Your task to perform on an android device: turn off javascript in the chrome app Image 0: 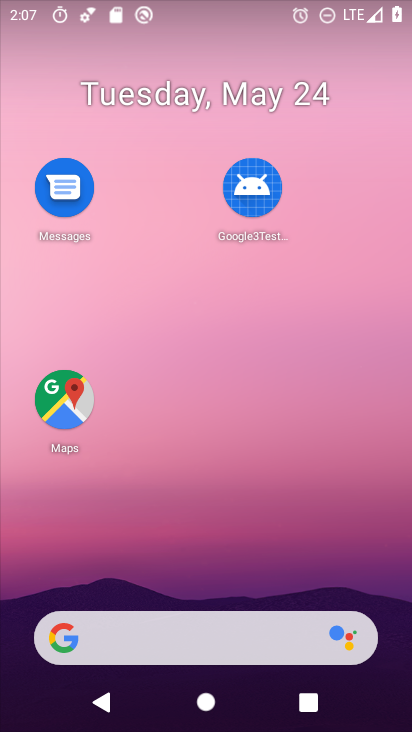
Step 0: drag from (229, 554) to (243, 469)
Your task to perform on an android device: turn off javascript in the chrome app Image 1: 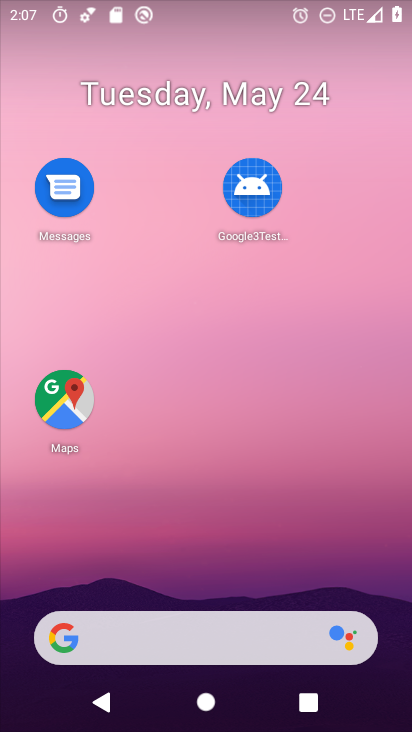
Step 1: drag from (178, 489) to (212, 13)
Your task to perform on an android device: turn off javascript in the chrome app Image 2: 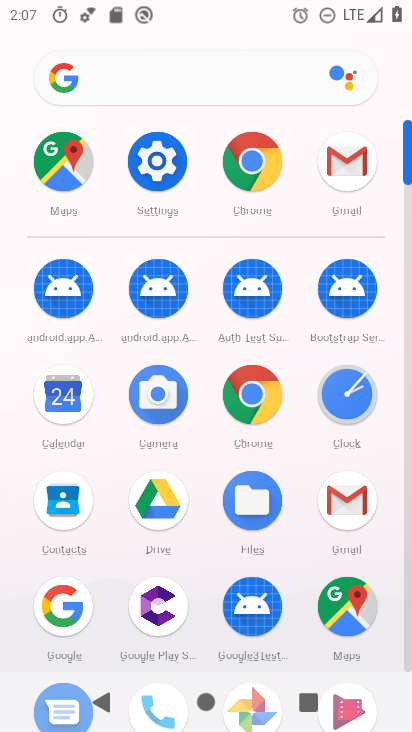
Step 2: click (254, 160)
Your task to perform on an android device: turn off javascript in the chrome app Image 3: 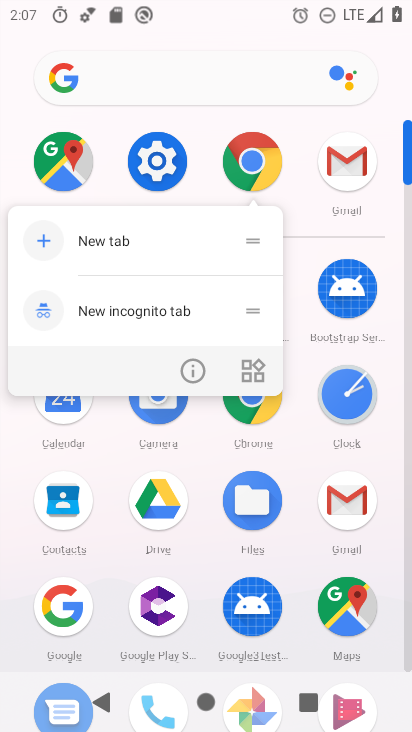
Step 3: click (254, 160)
Your task to perform on an android device: turn off javascript in the chrome app Image 4: 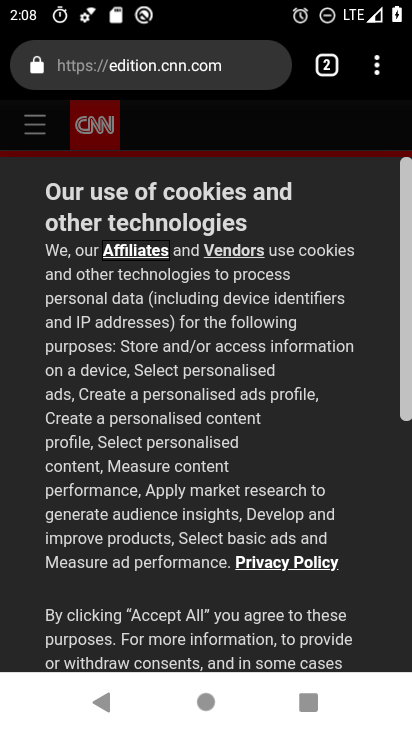
Step 4: click (379, 73)
Your task to perform on an android device: turn off javascript in the chrome app Image 5: 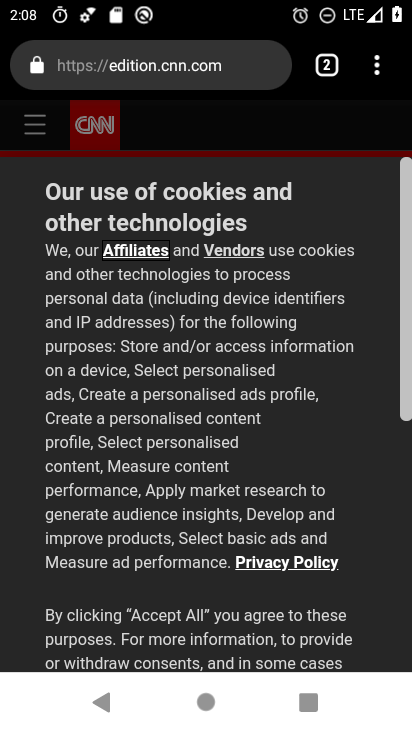
Step 5: click (379, 73)
Your task to perform on an android device: turn off javascript in the chrome app Image 6: 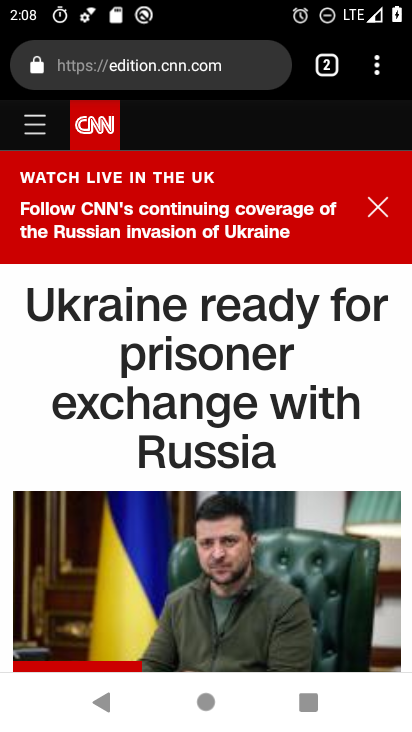
Step 6: click (380, 66)
Your task to perform on an android device: turn off javascript in the chrome app Image 7: 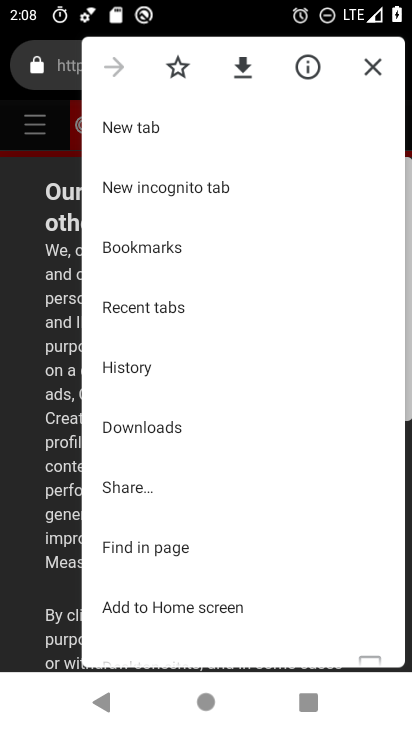
Step 7: drag from (171, 351) to (175, 280)
Your task to perform on an android device: turn off javascript in the chrome app Image 8: 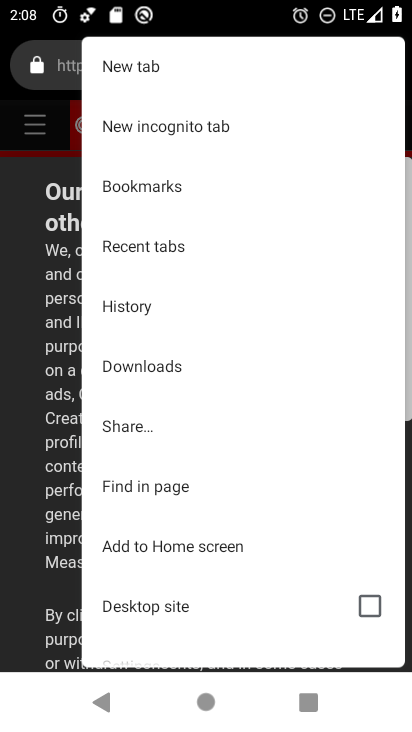
Step 8: click (196, 333)
Your task to perform on an android device: turn off javascript in the chrome app Image 9: 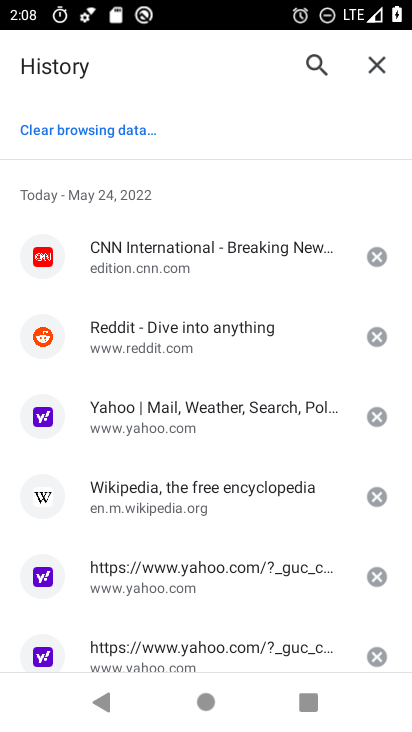
Step 9: click (375, 67)
Your task to perform on an android device: turn off javascript in the chrome app Image 10: 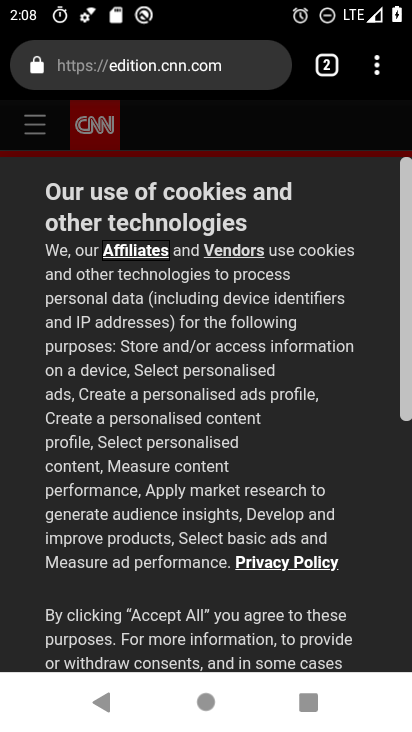
Step 10: click (378, 72)
Your task to perform on an android device: turn off javascript in the chrome app Image 11: 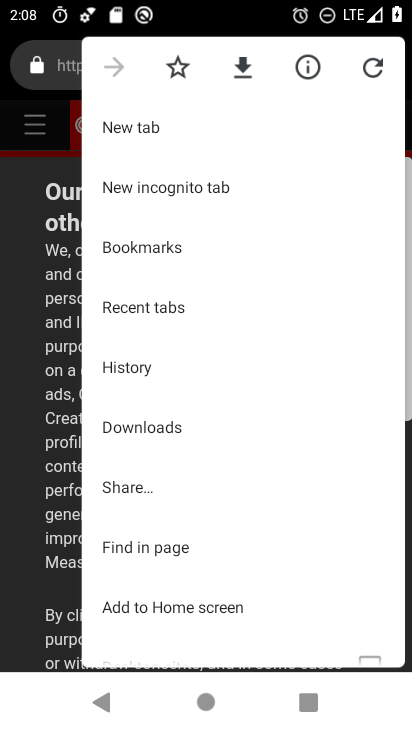
Step 11: drag from (185, 495) to (174, 187)
Your task to perform on an android device: turn off javascript in the chrome app Image 12: 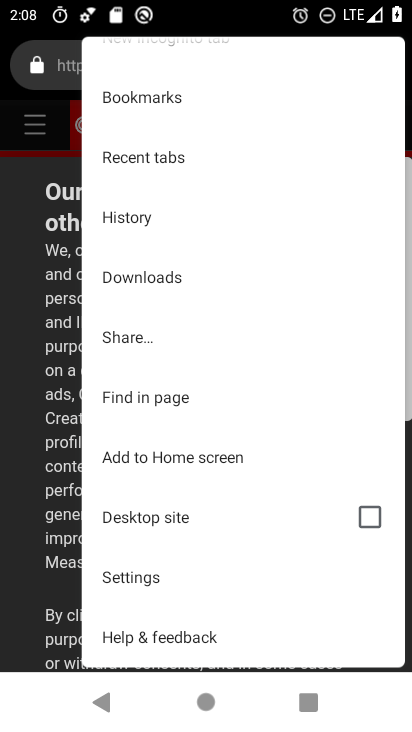
Step 12: click (121, 583)
Your task to perform on an android device: turn off javascript in the chrome app Image 13: 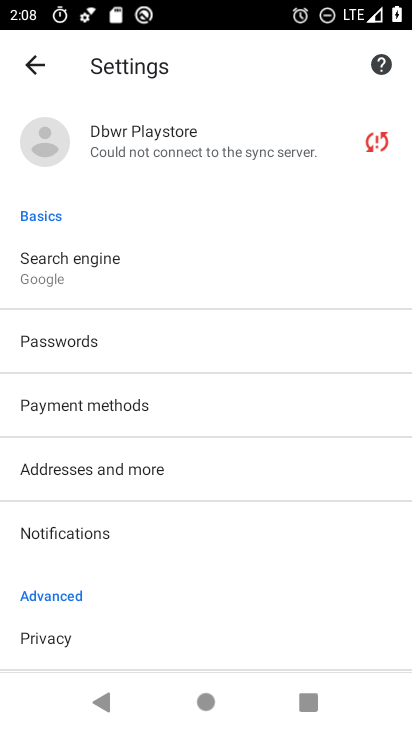
Step 13: click (44, 225)
Your task to perform on an android device: turn off javascript in the chrome app Image 14: 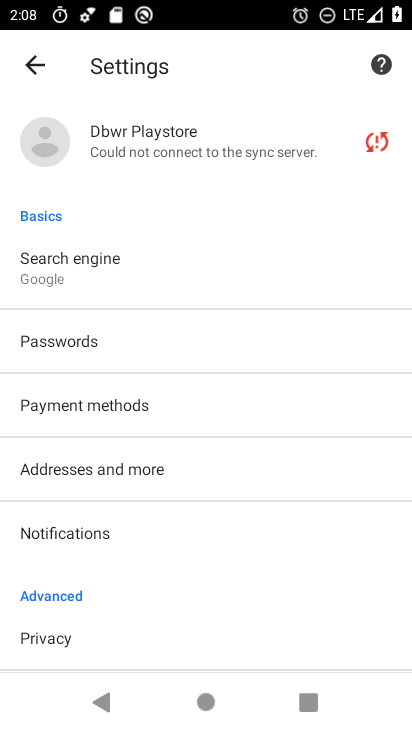
Step 14: drag from (53, 583) to (108, 217)
Your task to perform on an android device: turn off javascript in the chrome app Image 15: 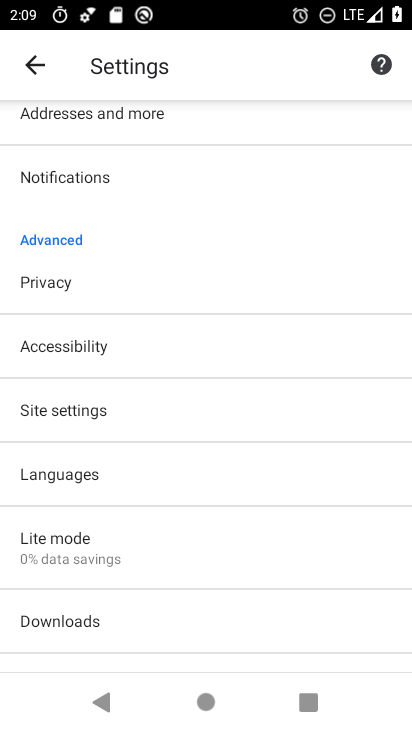
Step 15: click (77, 413)
Your task to perform on an android device: turn off javascript in the chrome app Image 16: 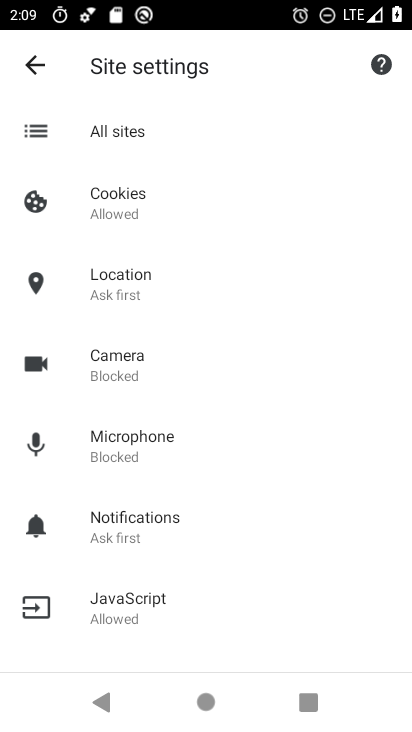
Step 16: click (130, 622)
Your task to perform on an android device: turn off javascript in the chrome app Image 17: 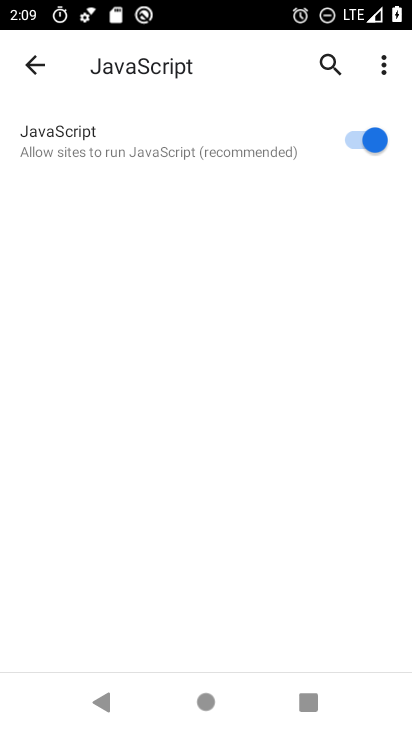
Step 17: click (343, 132)
Your task to perform on an android device: turn off javascript in the chrome app Image 18: 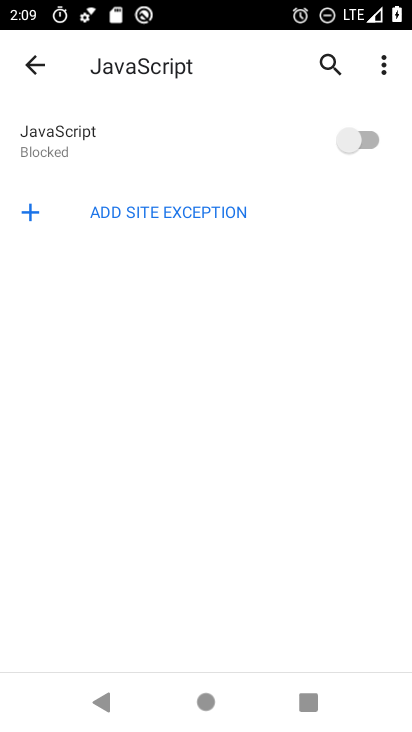
Step 18: task complete